Your task to perform on an android device: Turn on the flashlight Image 0: 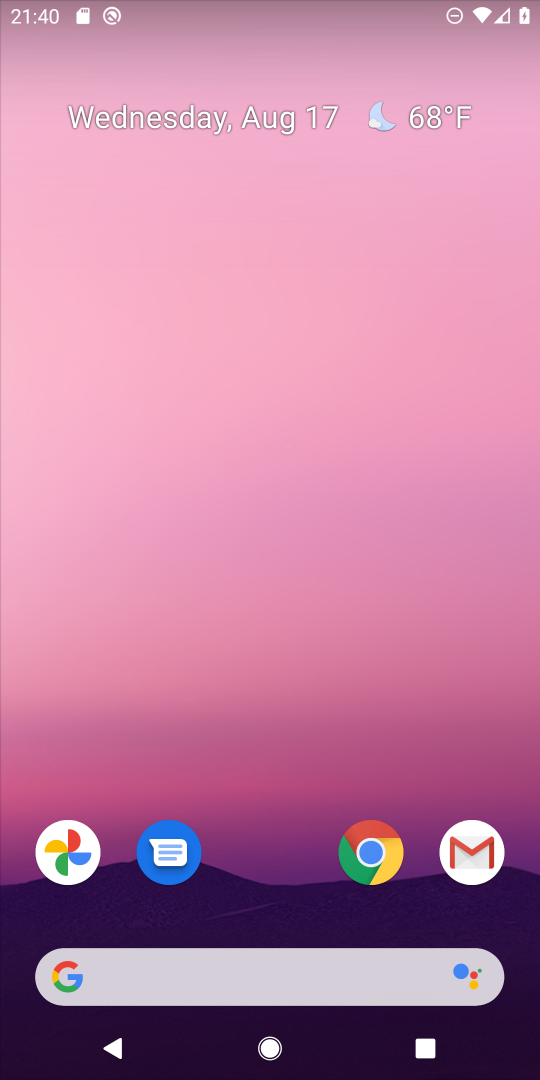
Step 0: drag from (296, 905) to (236, 149)
Your task to perform on an android device: Turn on the flashlight Image 1: 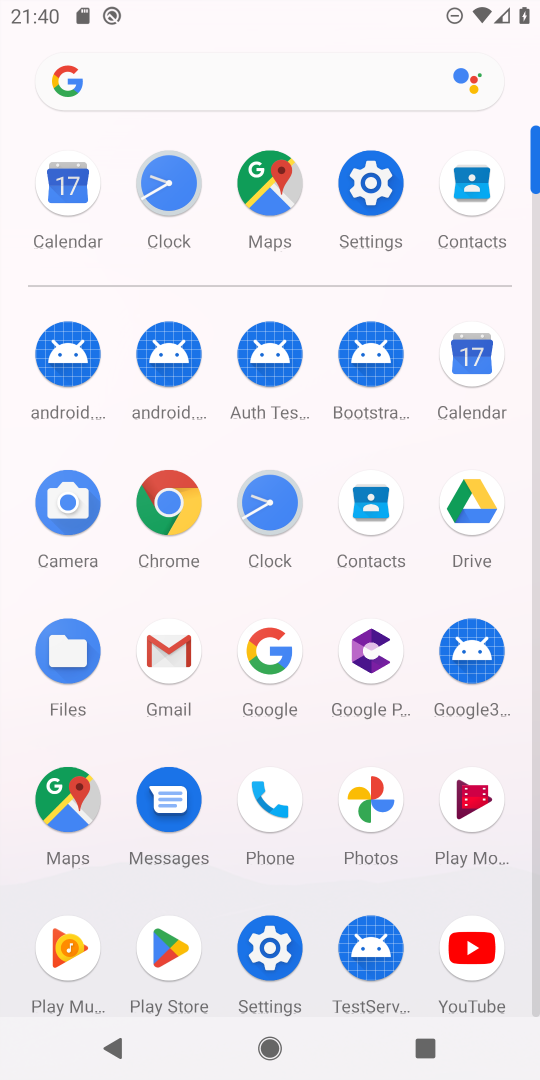
Step 1: click (373, 332)
Your task to perform on an android device: Turn on the flashlight Image 2: 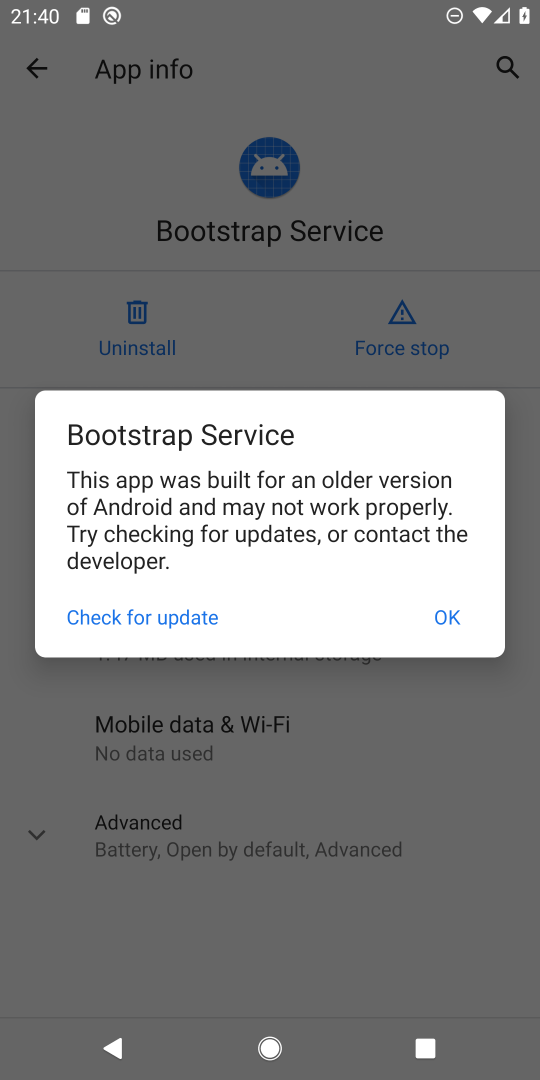
Step 2: click (435, 620)
Your task to perform on an android device: Turn on the flashlight Image 3: 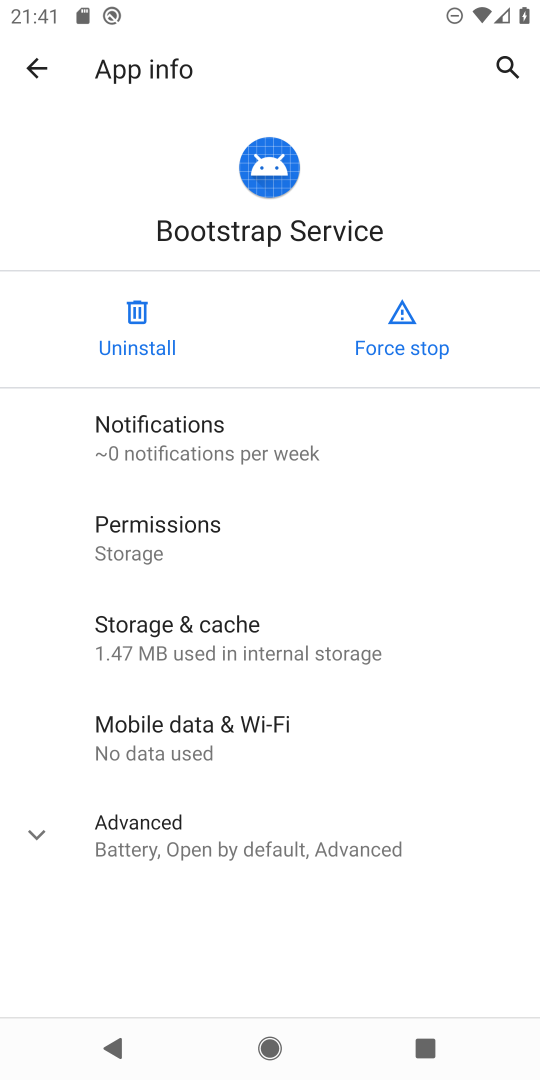
Step 3: click (30, 67)
Your task to perform on an android device: Turn on the flashlight Image 4: 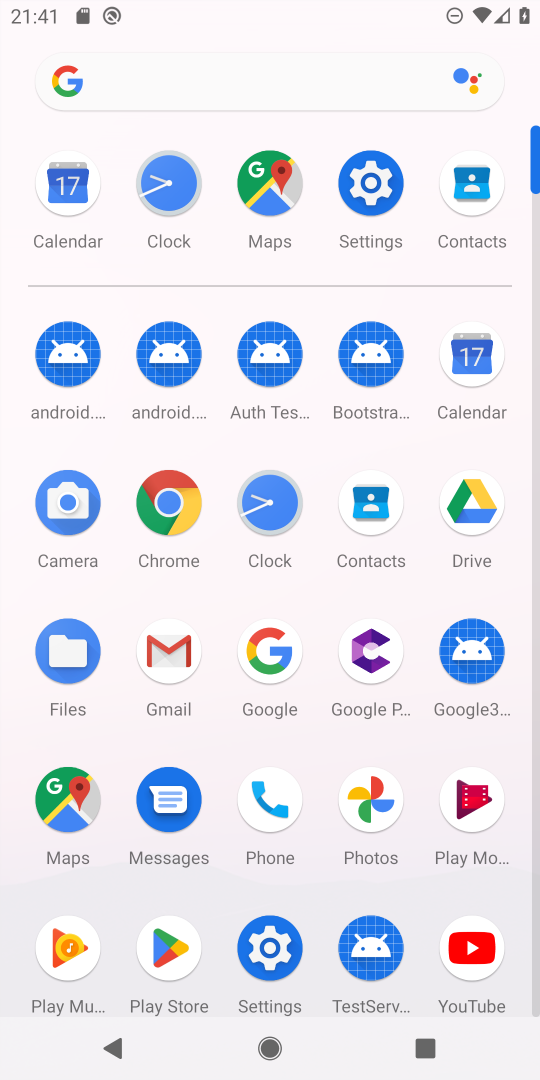
Step 4: click (373, 185)
Your task to perform on an android device: Turn on the flashlight Image 5: 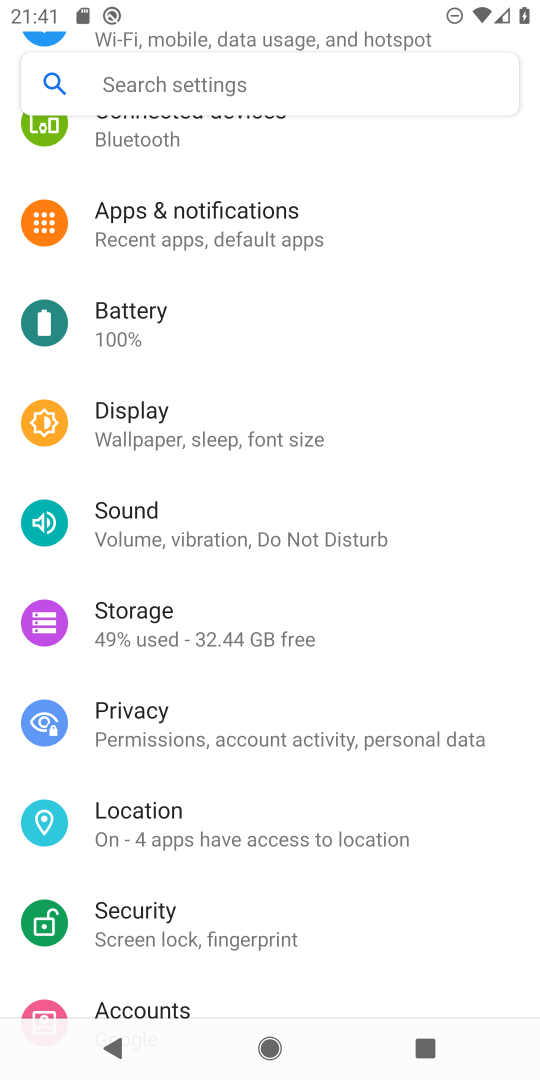
Step 5: click (144, 422)
Your task to perform on an android device: Turn on the flashlight Image 6: 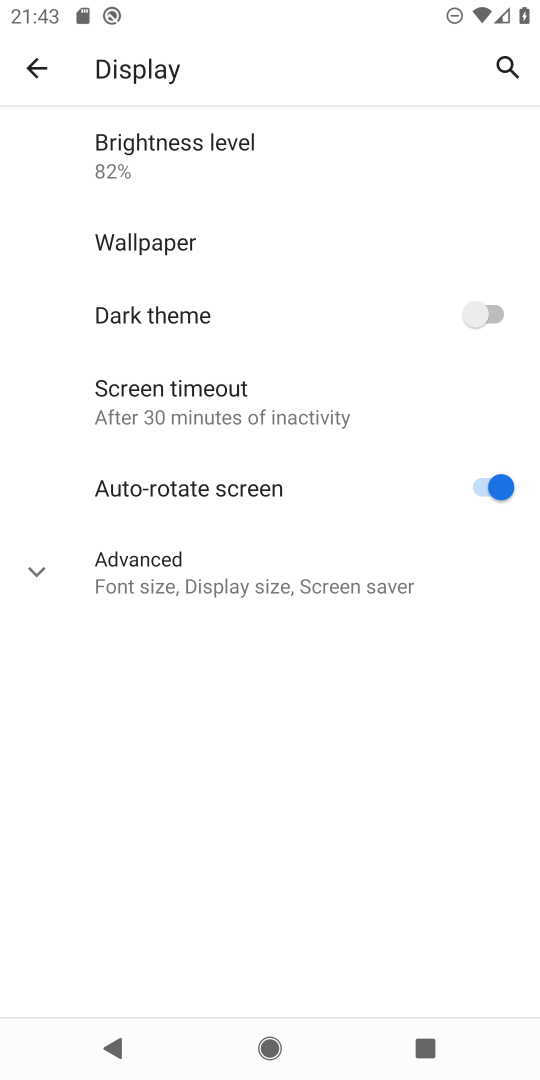
Step 6: task complete